Your task to perform on an android device: turn smart compose on in the gmail app Image 0: 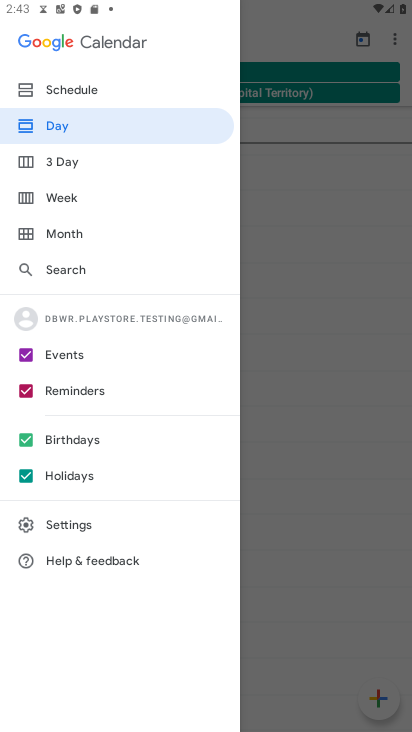
Step 0: press home button
Your task to perform on an android device: turn smart compose on in the gmail app Image 1: 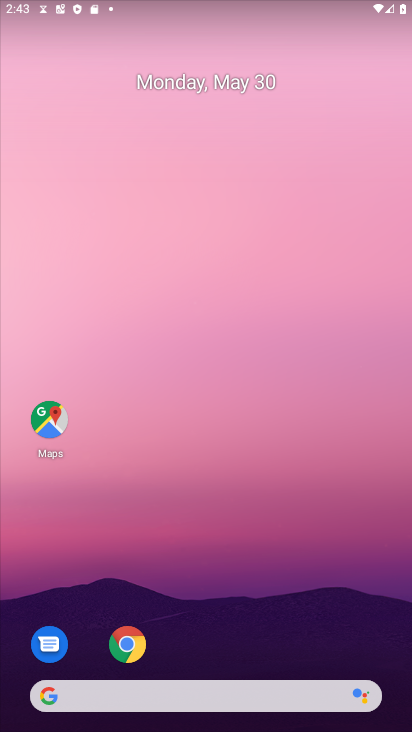
Step 1: click (342, 218)
Your task to perform on an android device: turn smart compose on in the gmail app Image 2: 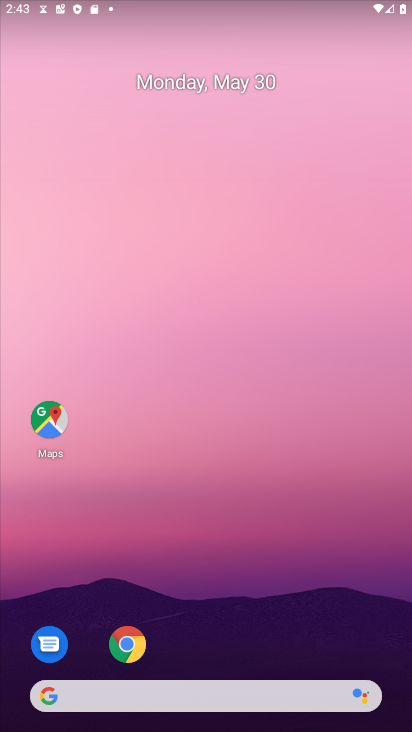
Step 2: drag from (210, 634) to (172, 7)
Your task to perform on an android device: turn smart compose on in the gmail app Image 3: 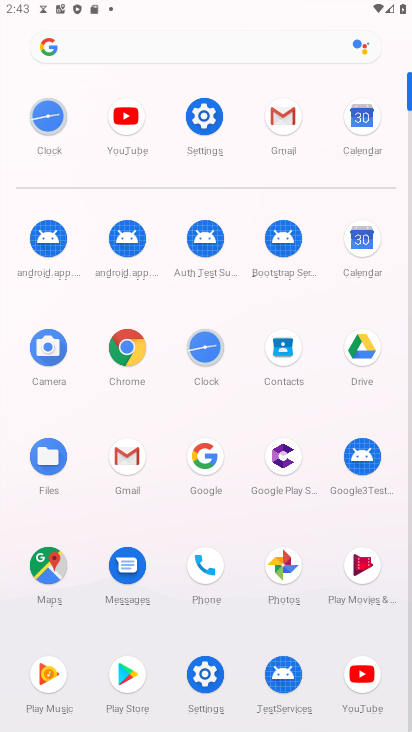
Step 3: click (283, 119)
Your task to perform on an android device: turn smart compose on in the gmail app Image 4: 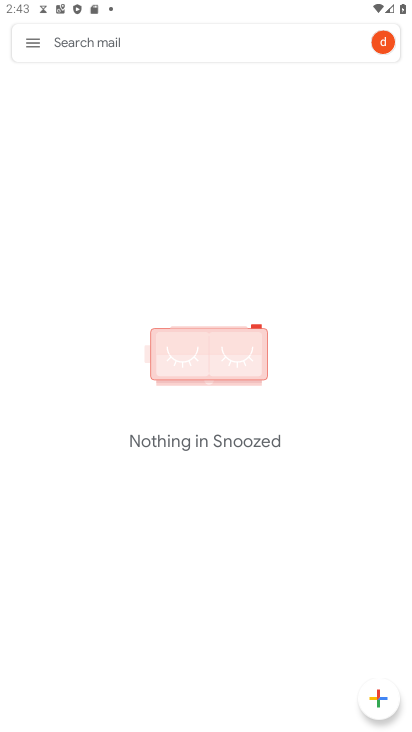
Step 4: click (35, 45)
Your task to perform on an android device: turn smart compose on in the gmail app Image 5: 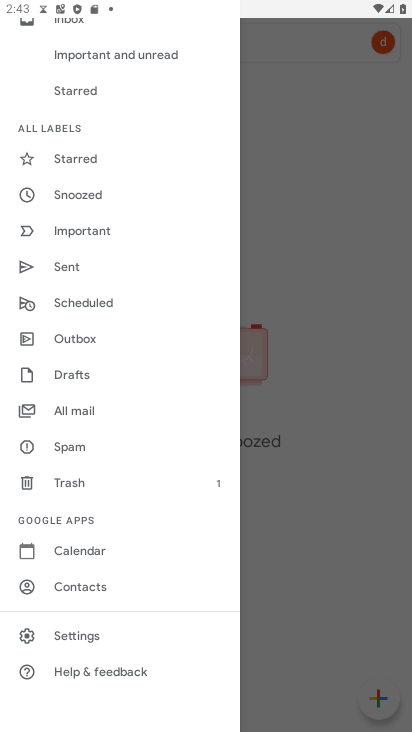
Step 5: click (76, 629)
Your task to perform on an android device: turn smart compose on in the gmail app Image 6: 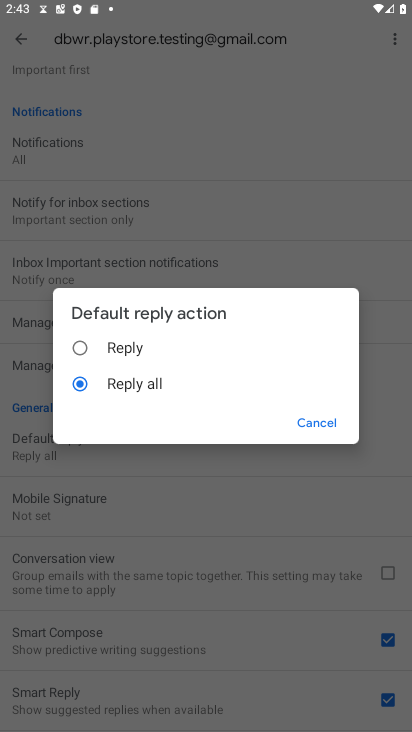
Step 6: click (317, 424)
Your task to perform on an android device: turn smart compose on in the gmail app Image 7: 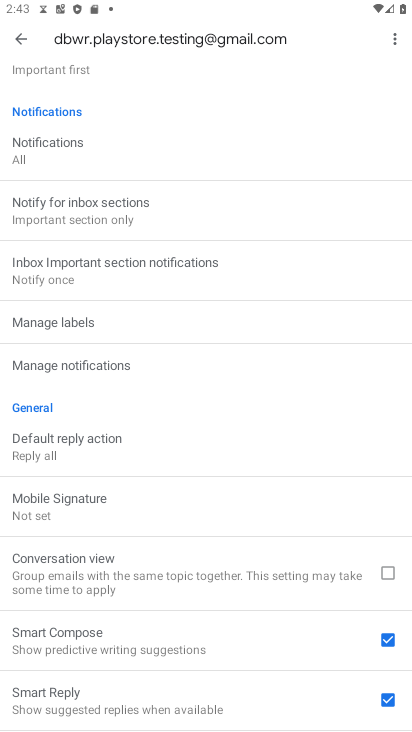
Step 7: task complete